Your task to perform on an android device: open a bookmark in the chrome app Image 0: 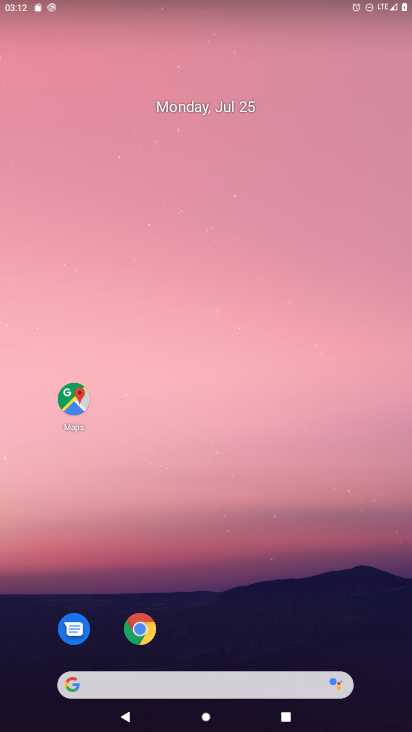
Step 0: drag from (230, 585) to (280, 88)
Your task to perform on an android device: open a bookmark in the chrome app Image 1: 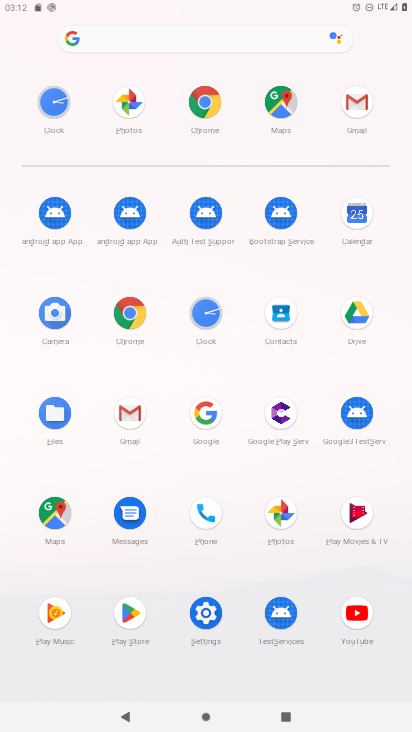
Step 1: click (136, 307)
Your task to perform on an android device: open a bookmark in the chrome app Image 2: 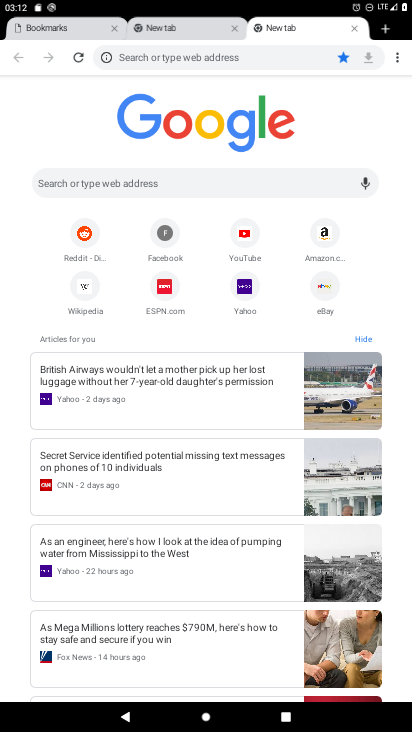
Step 2: task complete